Your task to perform on an android device: find which apps use the phone's location Image 0: 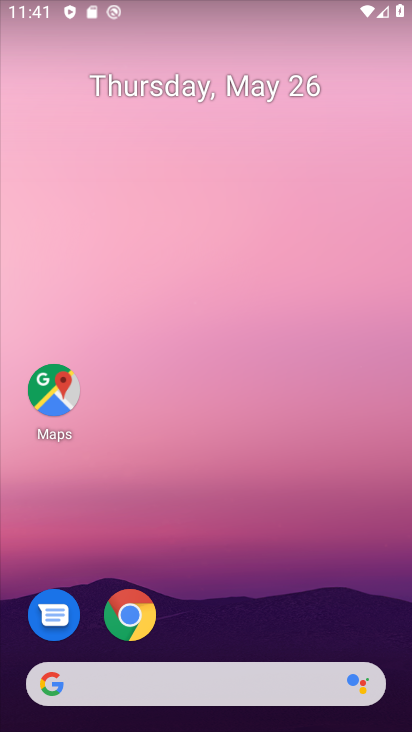
Step 0: drag from (195, 651) to (315, 116)
Your task to perform on an android device: find which apps use the phone's location Image 1: 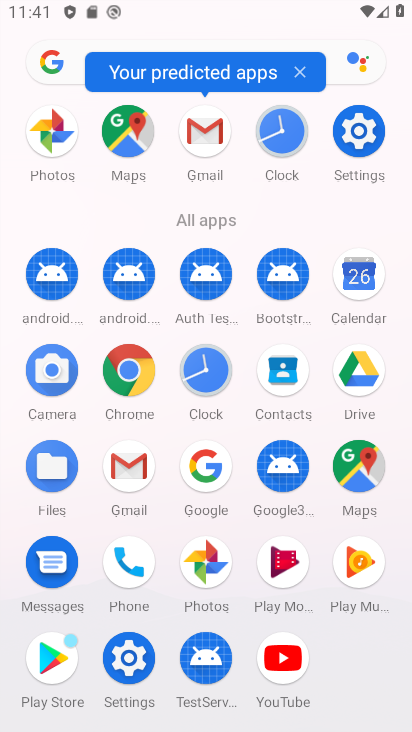
Step 1: drag from (200, 602) to (258, 299)
Your task to perform on an android device: find which apps use the phone's location Image 2: 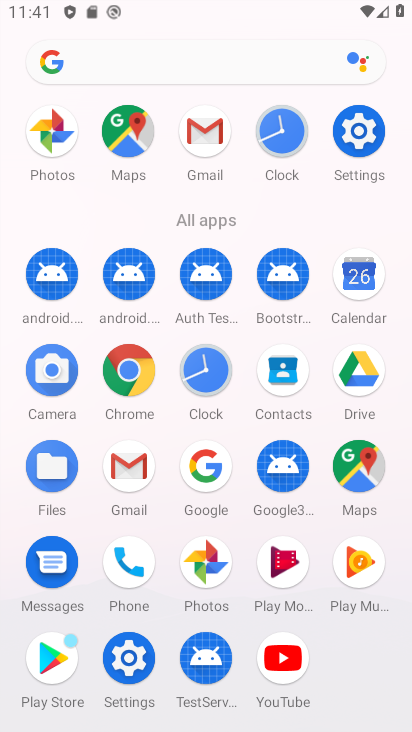
Step 2: click (126, 637)
Your task to perform on an android device: find which apps use the phone's location Image 3: 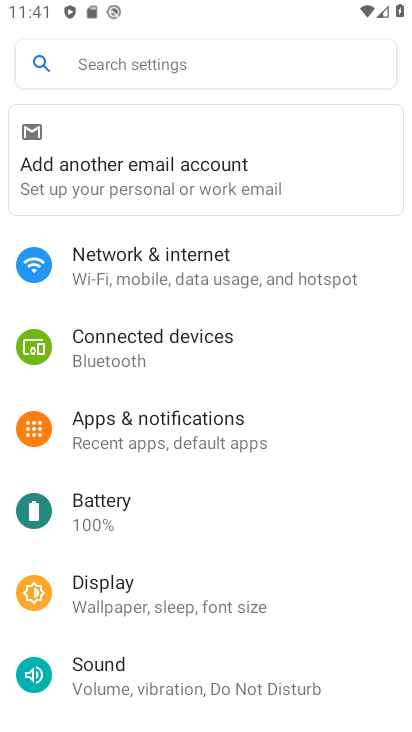
Step 3: drag from (182, 626) to (268, 128)
Your task to perform on an android device: find which apps use the phone's location Image 4: 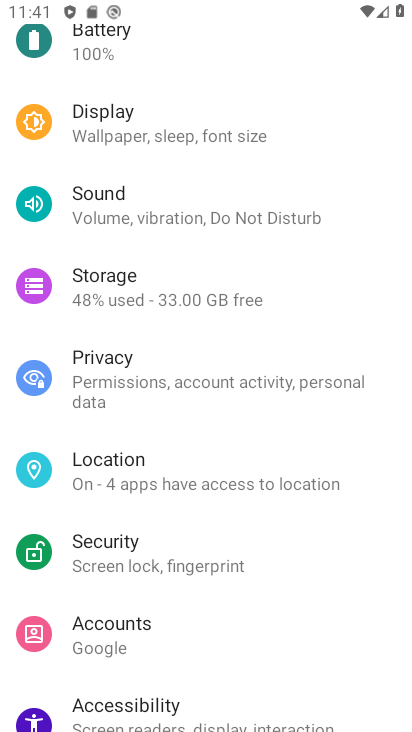
Step 4: drag from (161, 628) to (217, 382)
Your task to perform on an android device: find which apps use the phone's location Image 5: 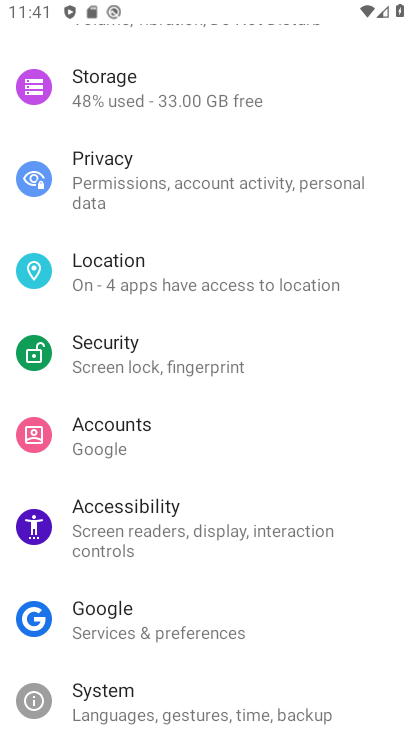
Step 5: click (154, 282)
Your task to perform on an android device: find which apps use the phone's location Image 6: 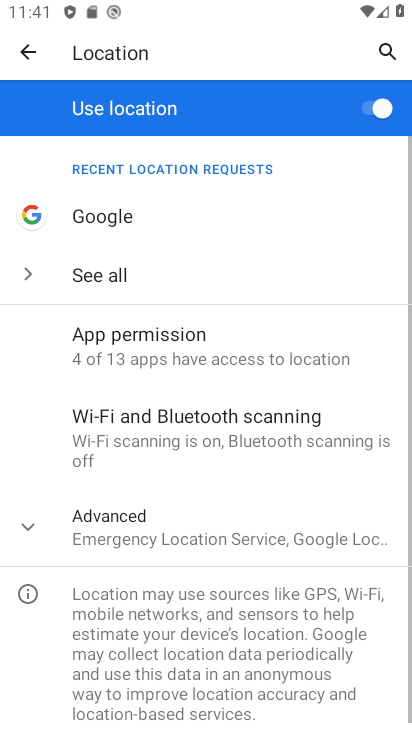
Step 6: click (176, 333)
Your task to perform on an android device: find which apps use the phone's location Image 7: 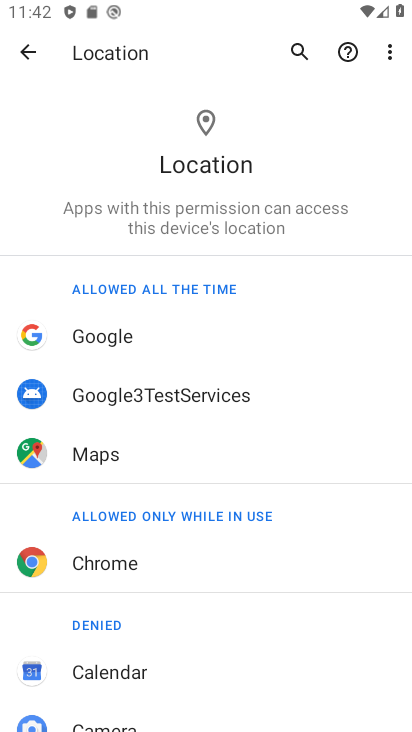
Step 7: task complete